Your task to perform on an android device: Is it going to rain today? Image 0: 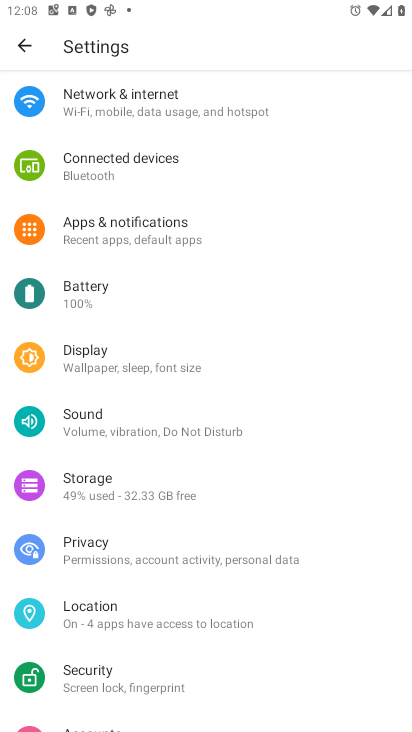
Step 0: press home button
Your task to perform on an android device: Is it going to rain today? Image 1: 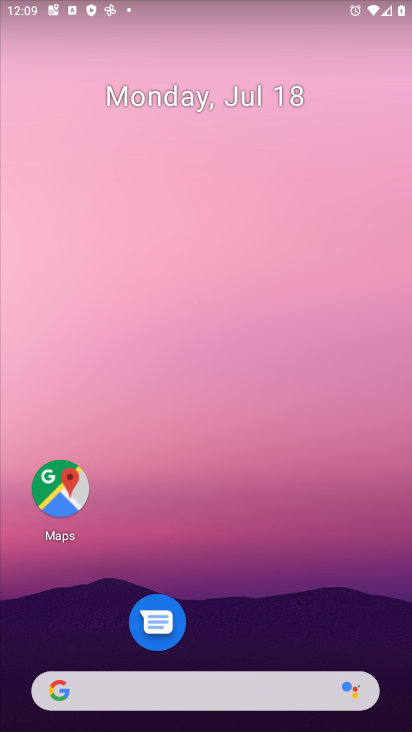
Step 1: click (274, 680)
Your task to perform on an android device: Is it going to rain today? Image 2: 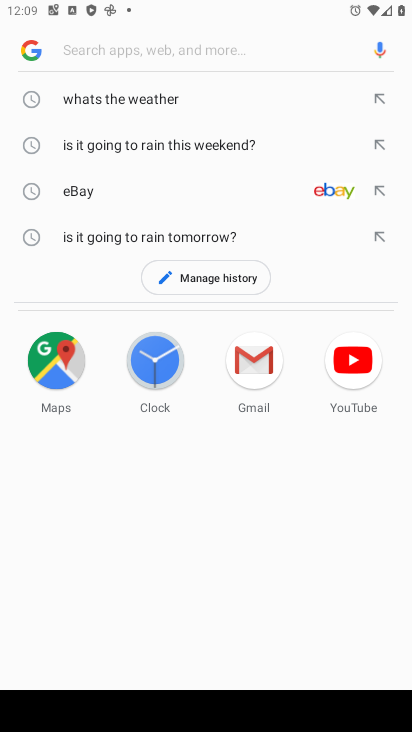
Step 2: type "Is it going to rain today?"
Your task to perform on an android device: Is it going to rain today? Image 3: 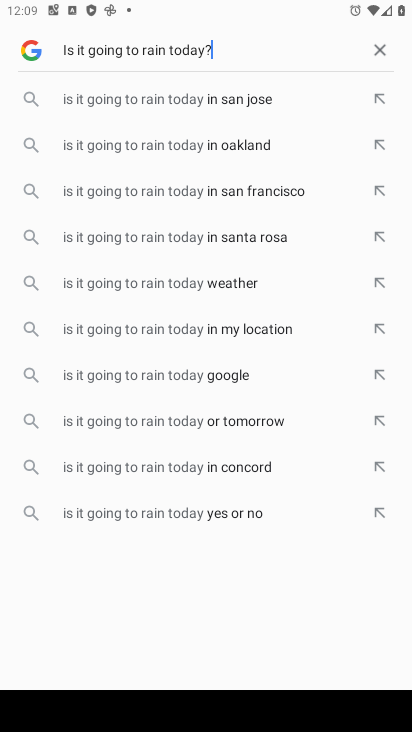
Step 3: press enter
Your task to perform on an android device: Is it going to rain today? Image 4: 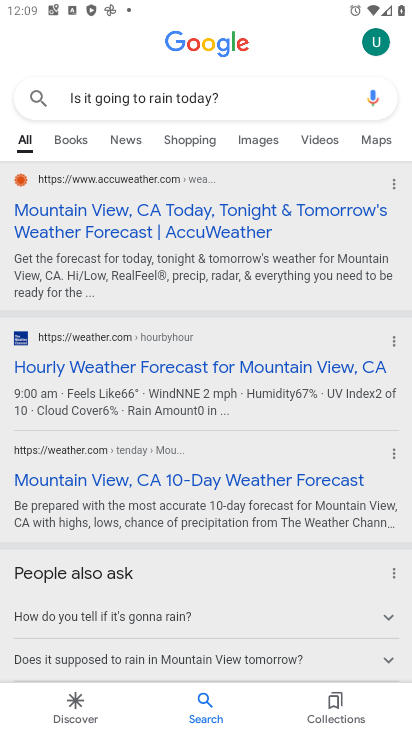
Step 4: task complete